Your task to perform on an android device: What's the price of the new iPhone on eBay? Image 0: 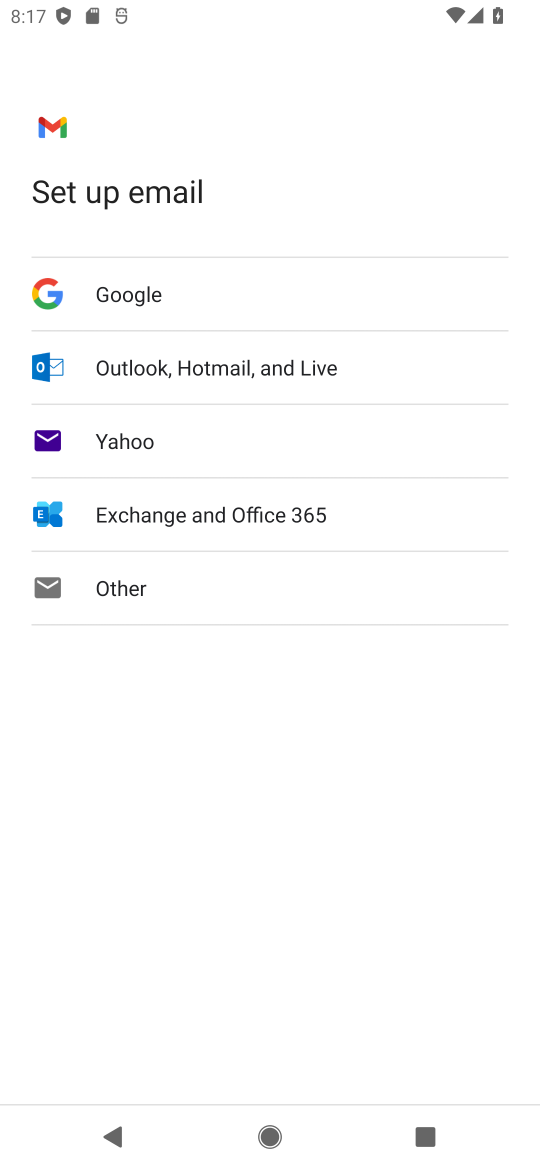
Step 0: press home button
Your task to perform on an android device: What's the price of the new iPhone on eBay? Image 1: 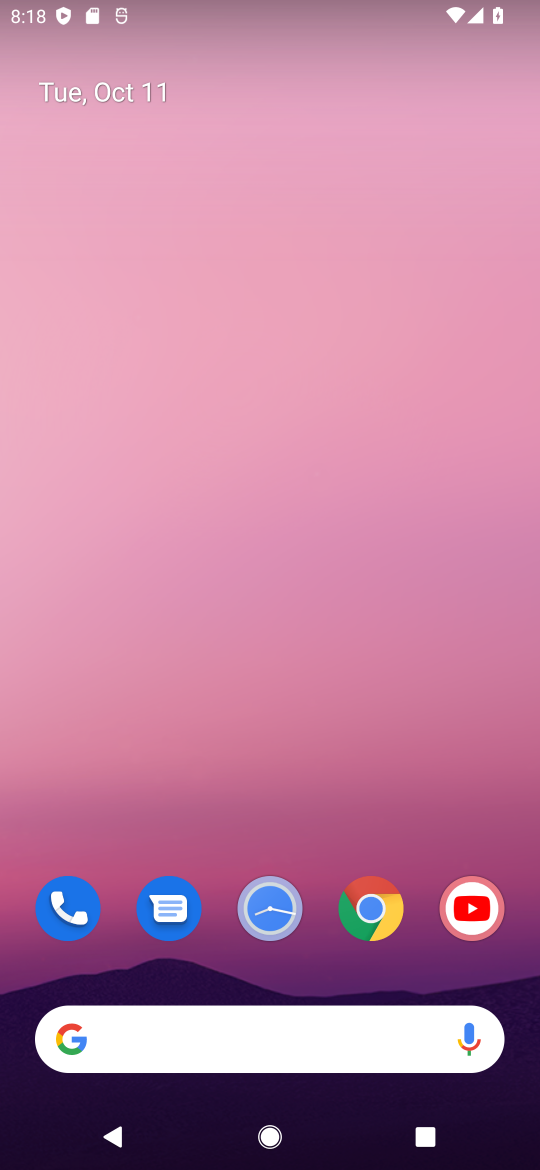
Step 1: click (290, 1010)
Your task to perform on an android device: What's the price of the new iPhone on eBay? Image 2: 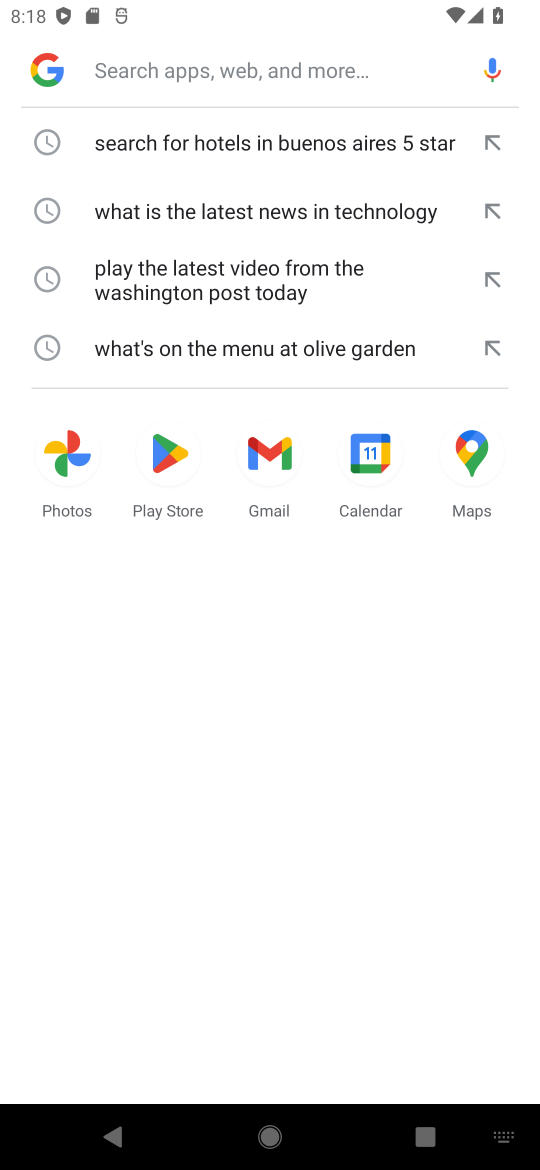
Step 2: type "What's the price of the new iPhone on eBay?"
Your task to perform on an android device: What's the price of the new iPhone on eBay? Image 3: 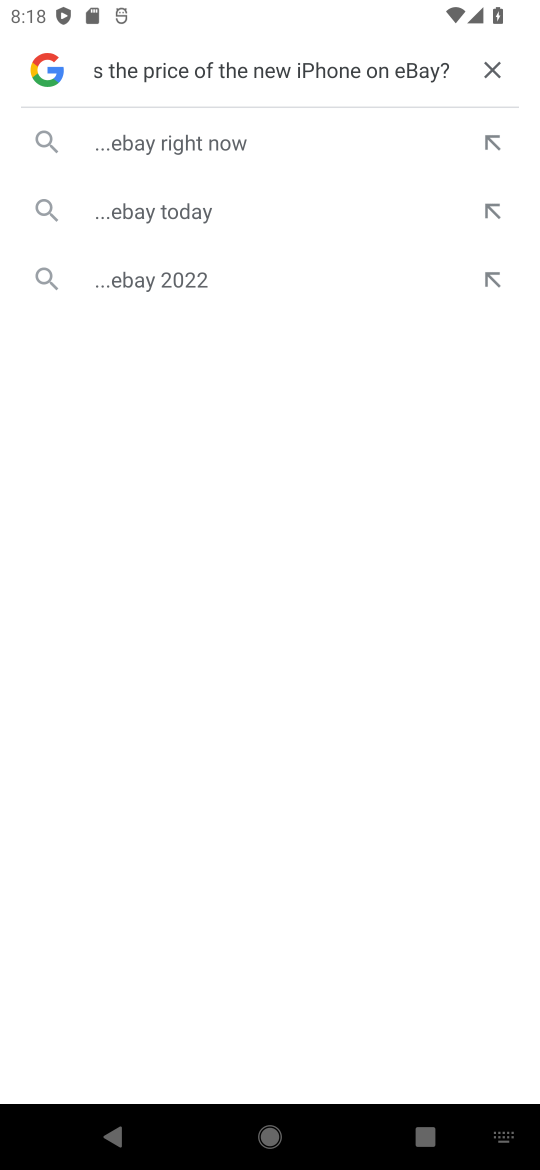
Step 3: click (216, 136)
Your task to perform on an android device: What's the price of the new iPhone on eBay? Image 4: 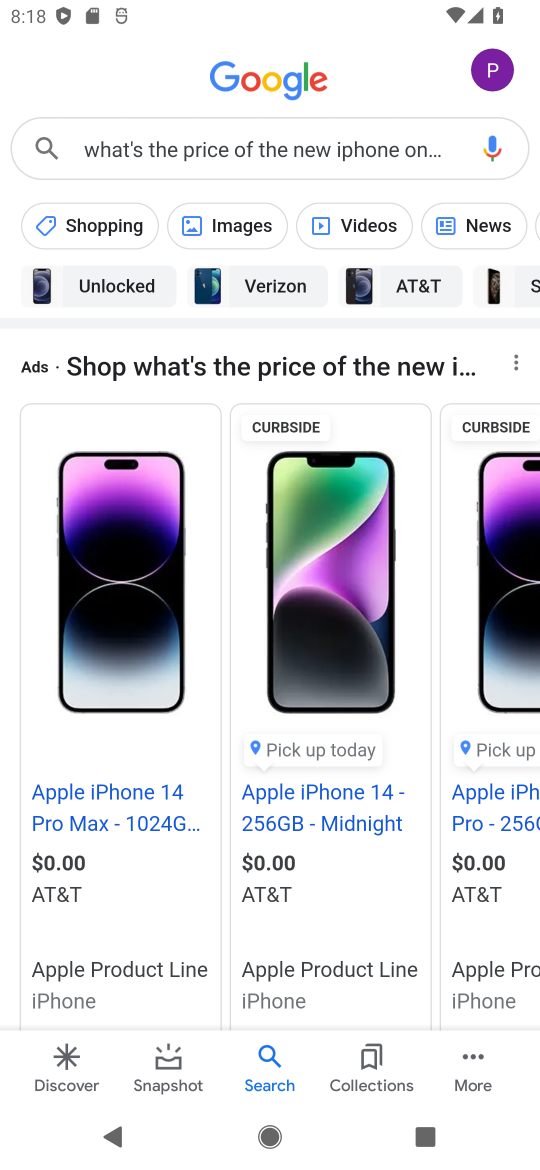
Step 4: drag from (197, 906) to (200, 672)
Your task to perform on an android device: What's the price of the new iPhone on eBay? Image 5: 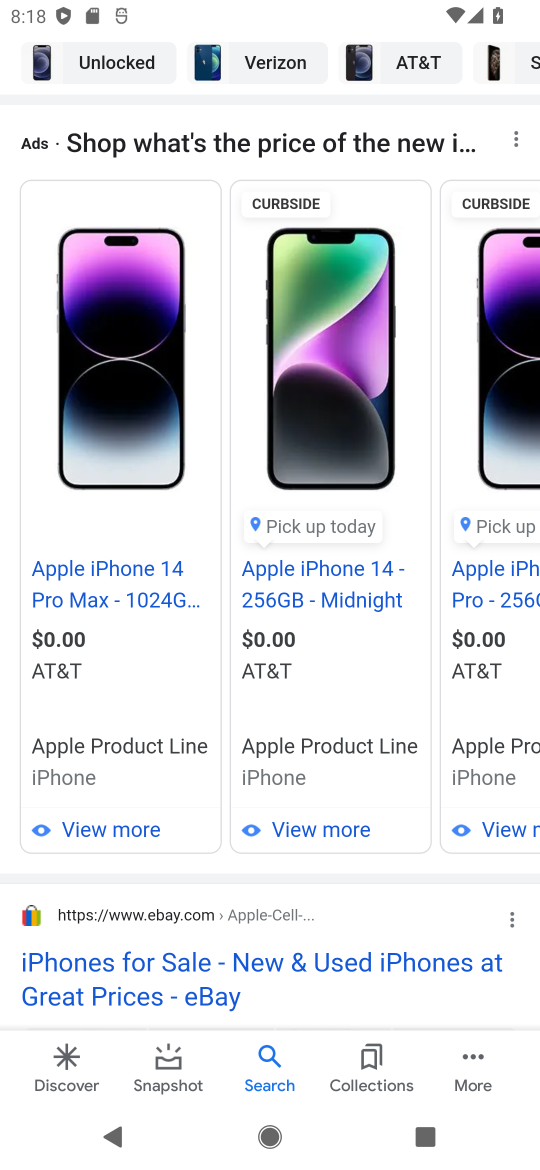
Step 5: click (185, 954)
Your task to perform on an android device: What's the price of the new iPhone on eBay? Image 6: 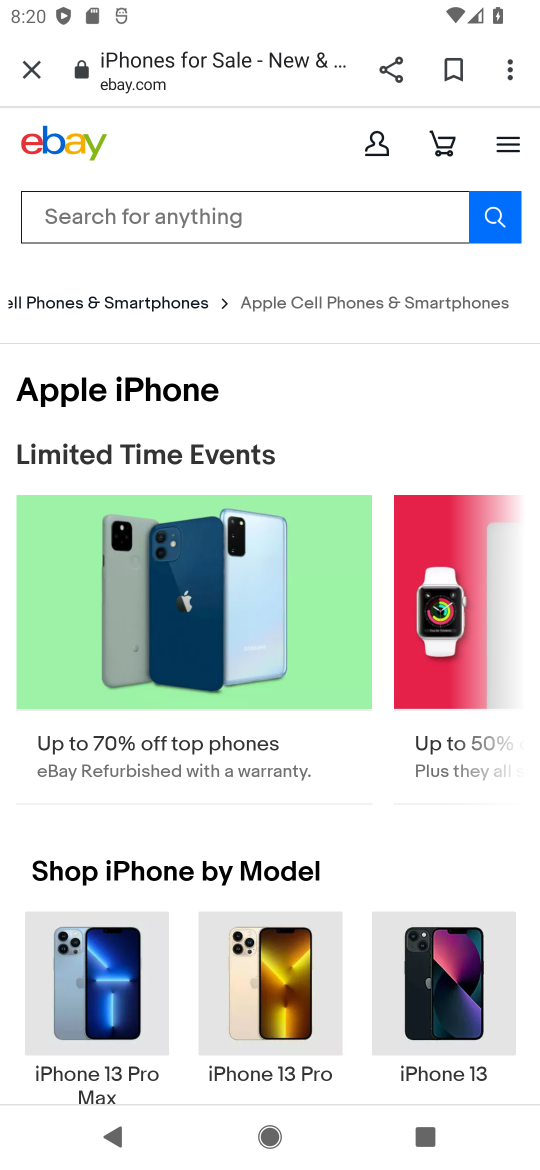
Step 6: task complete